Your task to perform on an android device: What's the weather going to be tomorrow? Image 0: 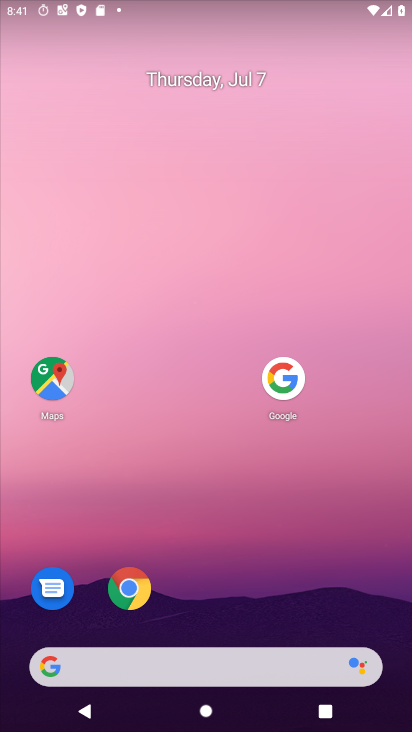
Step 0: click (155, 655)
Your task to perform on an android device: What's the weather going to be tomorrow? Image 1: 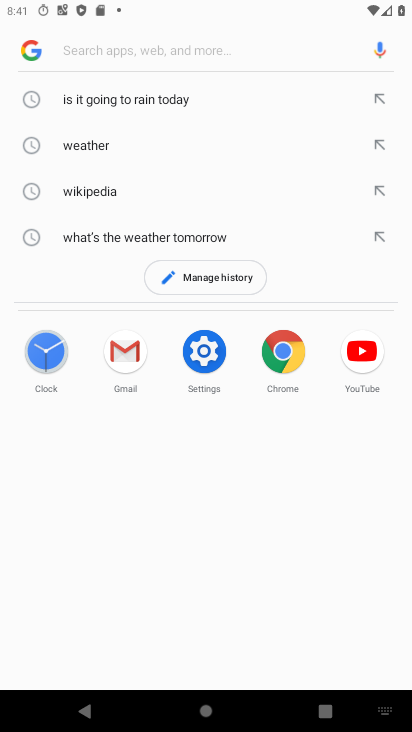
Step 1: click (151, 240)
Your task to perform on an android device: What's the weather going to be tomorrow? Image 2: 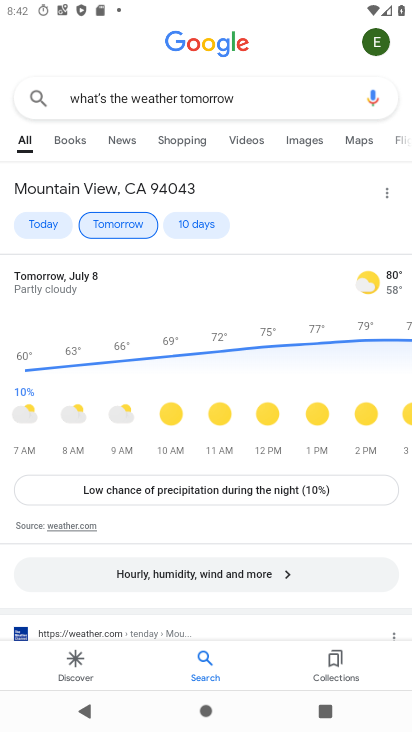
Step 2: task complete